Your task to perform on an android device: open the mobile data screen to see how much data has been used Image 0: 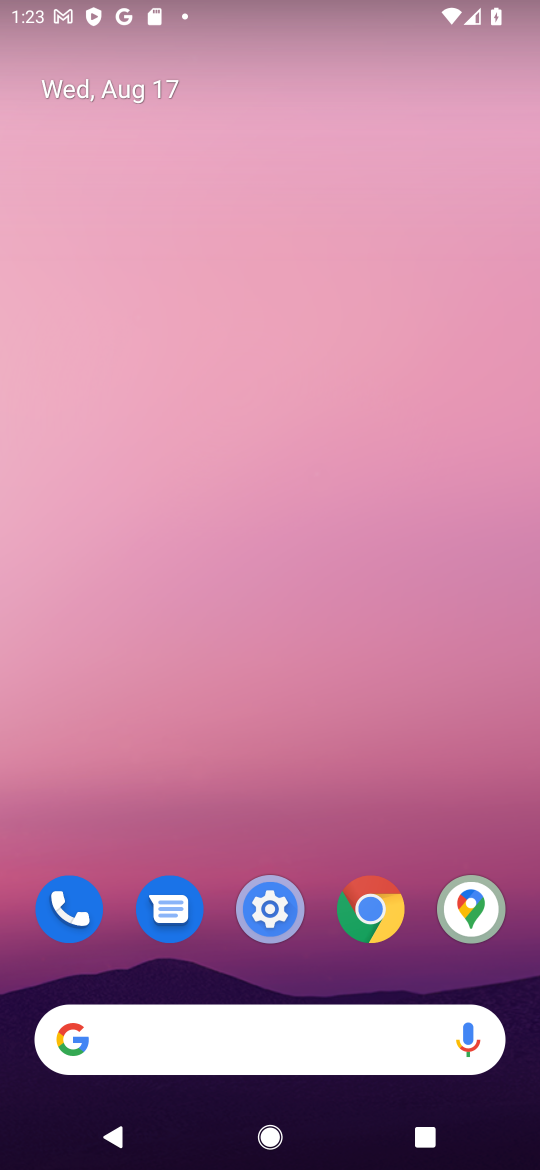
Step 0: drag from (290, 734) to (398, 243)
Your task to perform on an android device: open the mobile data screen to see how much data has been used Image 1: 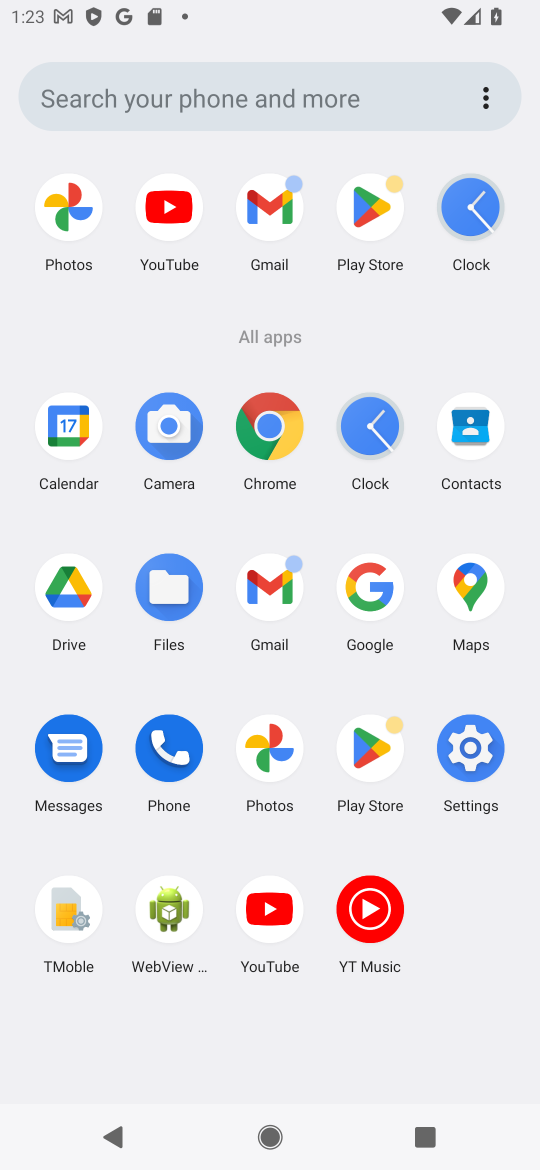
Step 1: task complete